Your task to perform on an android device: Open Chrome and go to settings Image 0: 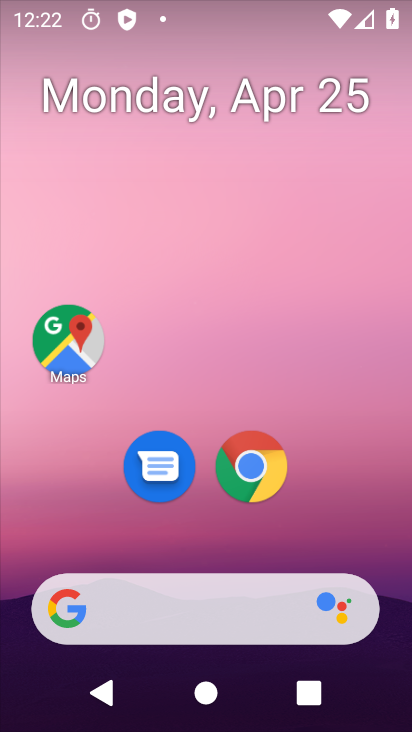
Step 0: click (292, 530)
Your task to perform on an android device: Open Chrome and go to settings Image 1: 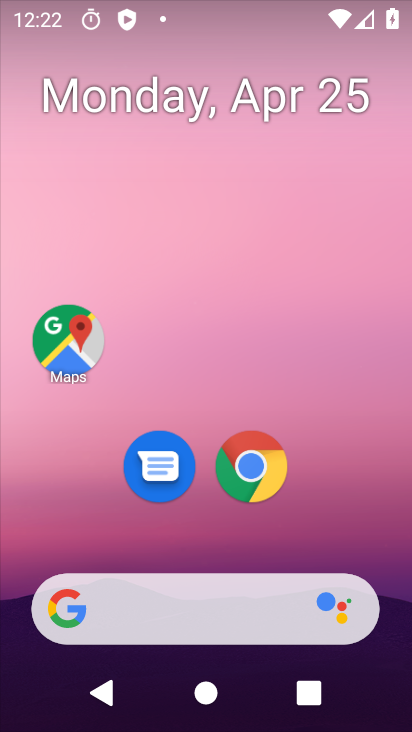
Step 1: click (273, 478)
Your task to perform on an android device: Open Chrome and go to settings Image 2: 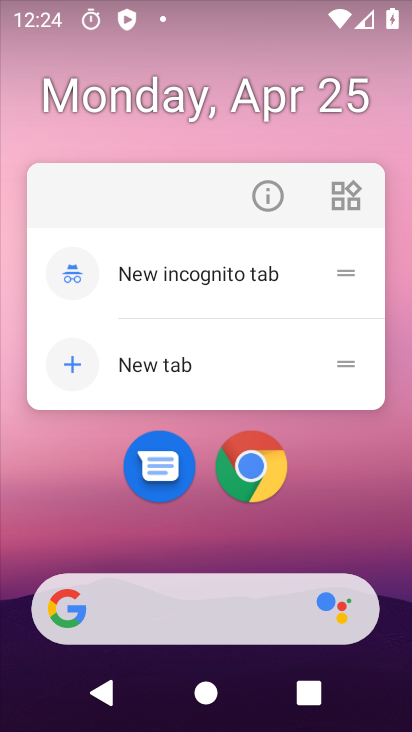
Step 2: click (246, 461)
Your task to perform on an android device: Open Chrome and go to settings Image 3: 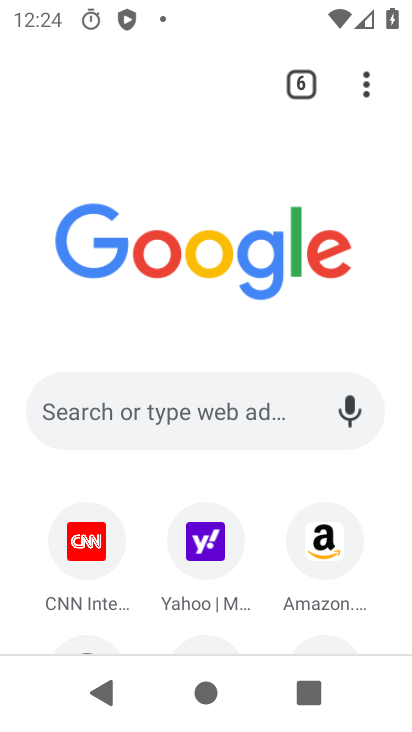
Step 3: click (369, 87)
Your task to perform on an android device: Open Chrome and go to settings Image 4: 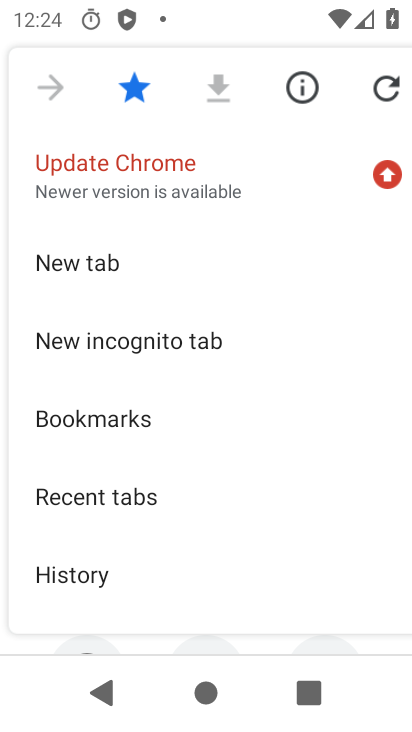
Step 4: drag from (293, 364) to (319, 23)
Your task to perform on an android device: Open Chrome and go to settings Image 5: 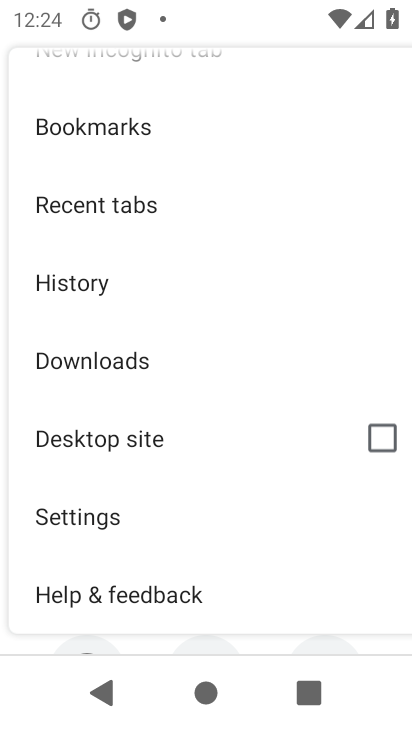
Step 5: click (237, 510)
Your task to perform on an android device: Open Chrome and go to settings Image 6: 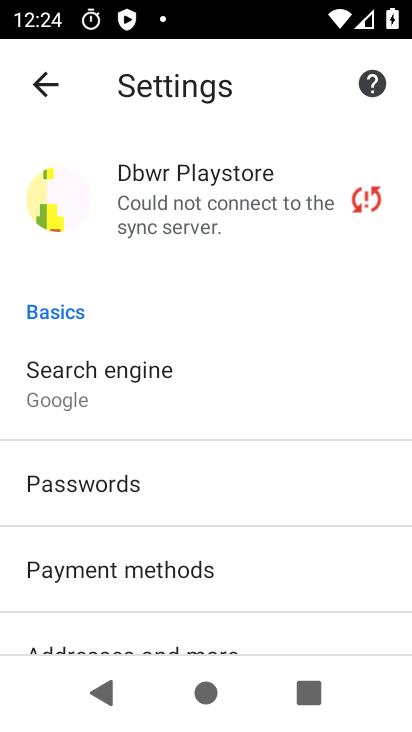
Step 6: task complete